Your task to perform on an android device: Clear the cart on amazon.com. Add bose soundsport free to the cart on amazon.com Image 0: 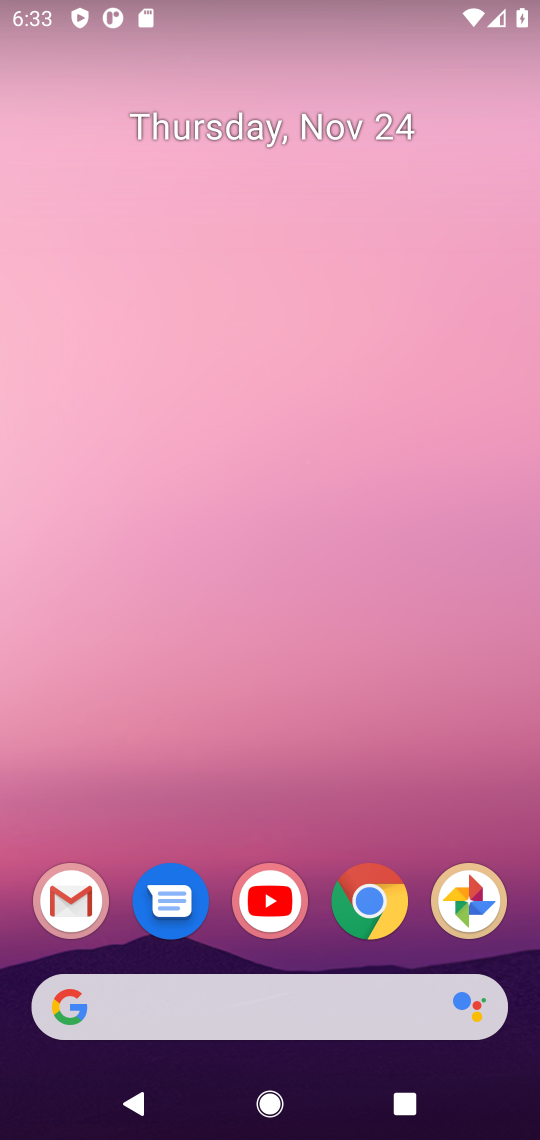
Step 0: click (400, 908)
Your task to perform on an android device: Clear the cart on amazon.com. Add bose soundsport free to the cart on amazon.com Image 1: 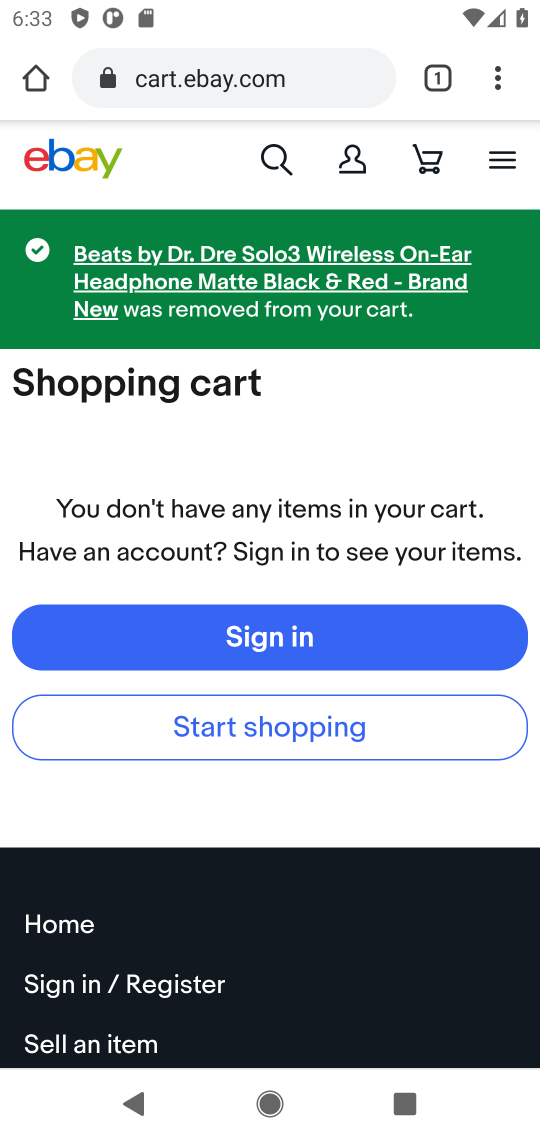
Step 1: click (267, 82)
Your task to perform on an android device: Clear the cart on amazon.com. Add bose soundsport free to the cart on amazon.com Image 2: 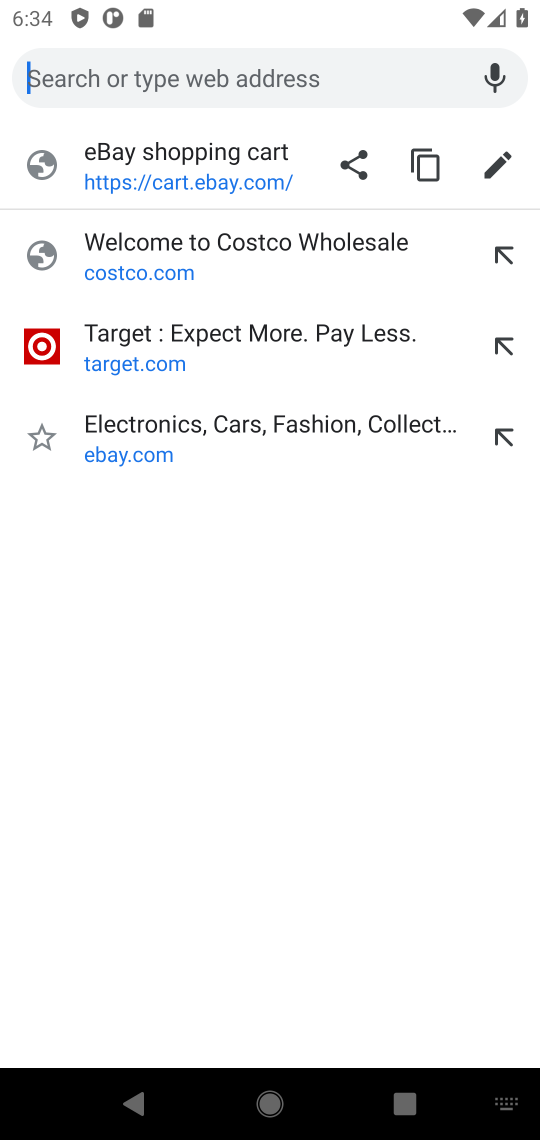
Step 2: type "amazon.com"
Your task to perform on an android device: Clear the cart on amazon.com. Add bose soundsport free to the cart on amazon.com Image 3: 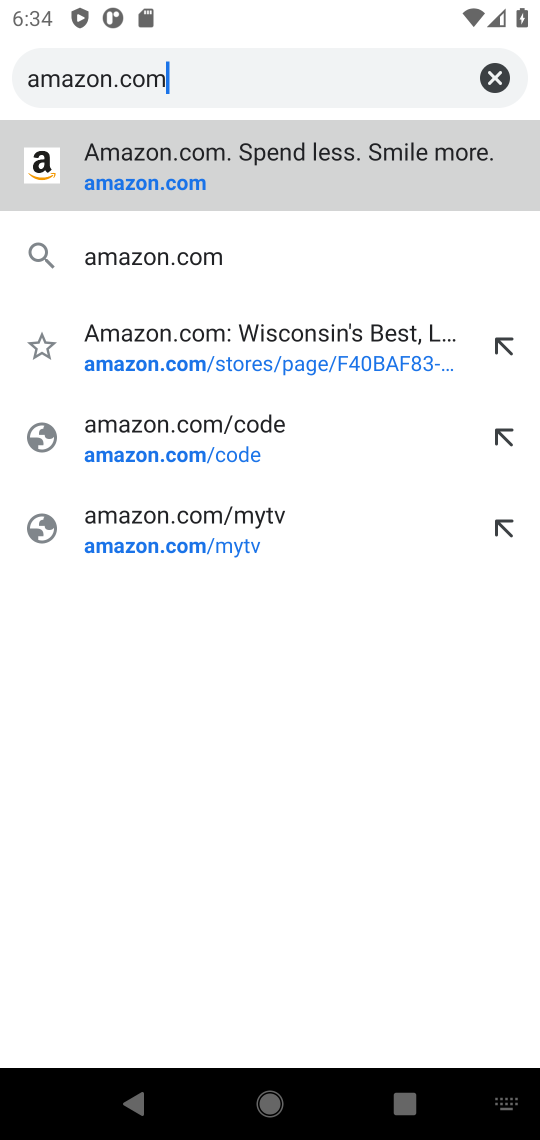
Step 3: click (301, 204)
Your task to perform on an android device: Clear the cart on amazon.com. Add bose soundsport free to the cart on amazon.com Image 4: 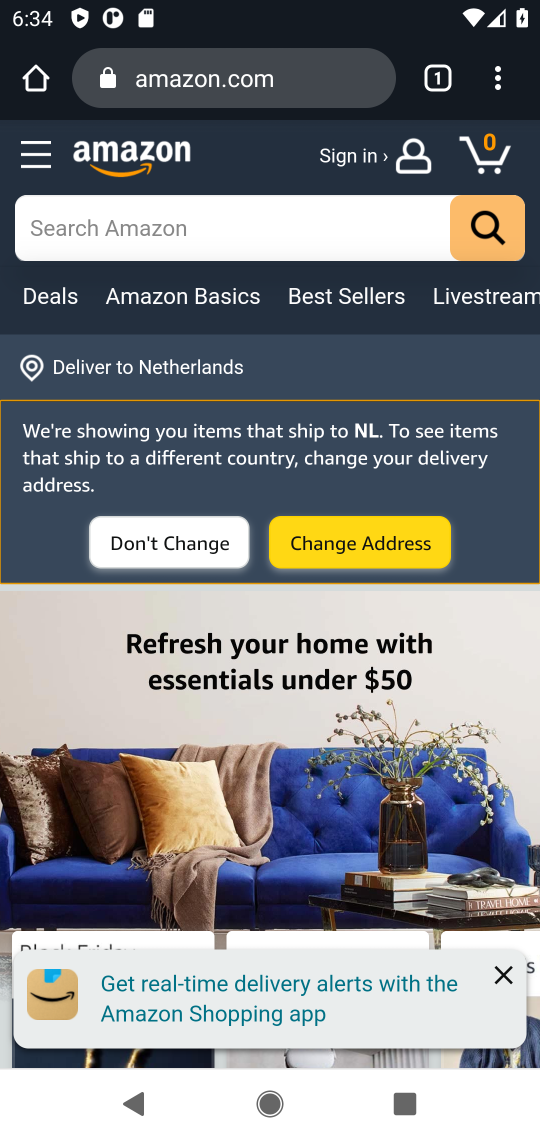
Step 4: click (305, 220)
Your task to perform on an android device: Clear the cart on amazon.com. Add bose soundsport free to the cart on amazon.com Image 5: 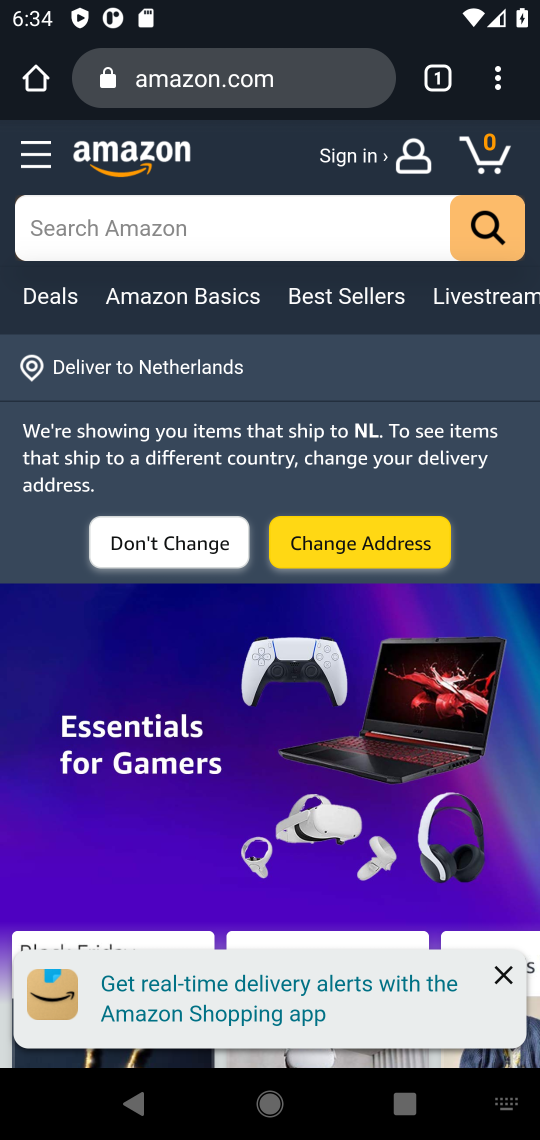
Step 5: type "bose soundsport free"
Your task to perform on an android device: Clear the cart on amazon.com. Add bose soundsport free to the cart on amazon.com Image 6: 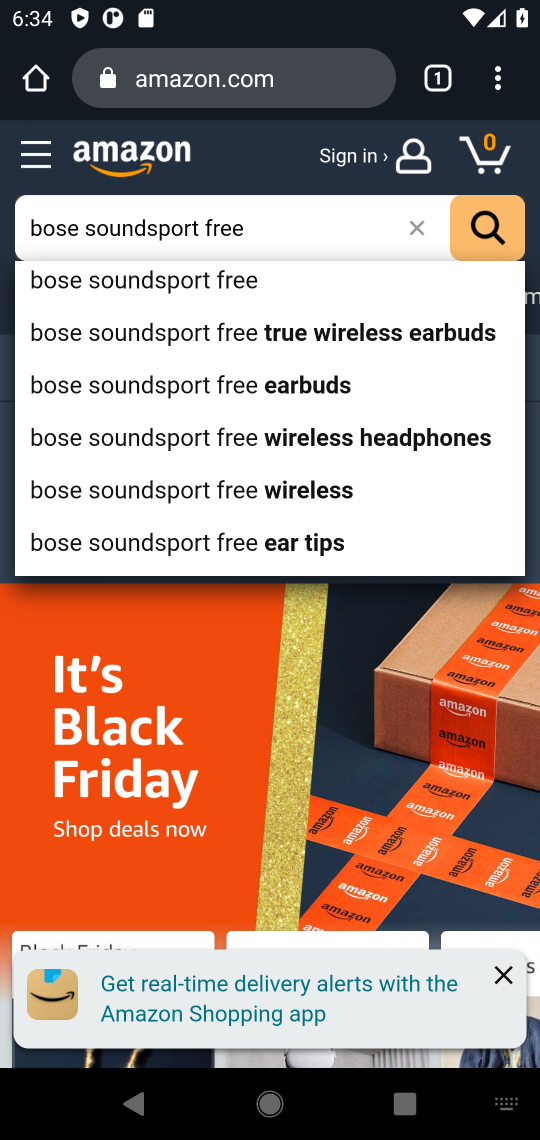
Step 6: click (151, 290)
Your task to perform on an android device: Clear the cart on amazon.com. Add bose soundsport free to the cart on amazon.com Image 7: 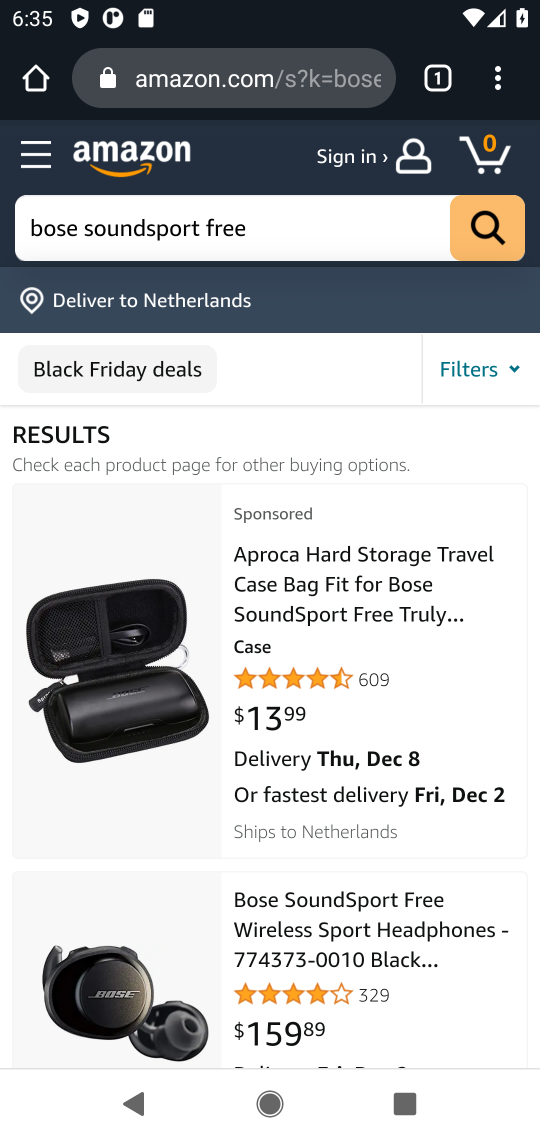
Step 7: click (149, 955)
Your task to perform on an android device: Clear the cart on amazon.com. Add bose soundsport free to the cart on amazon.com Image 8: 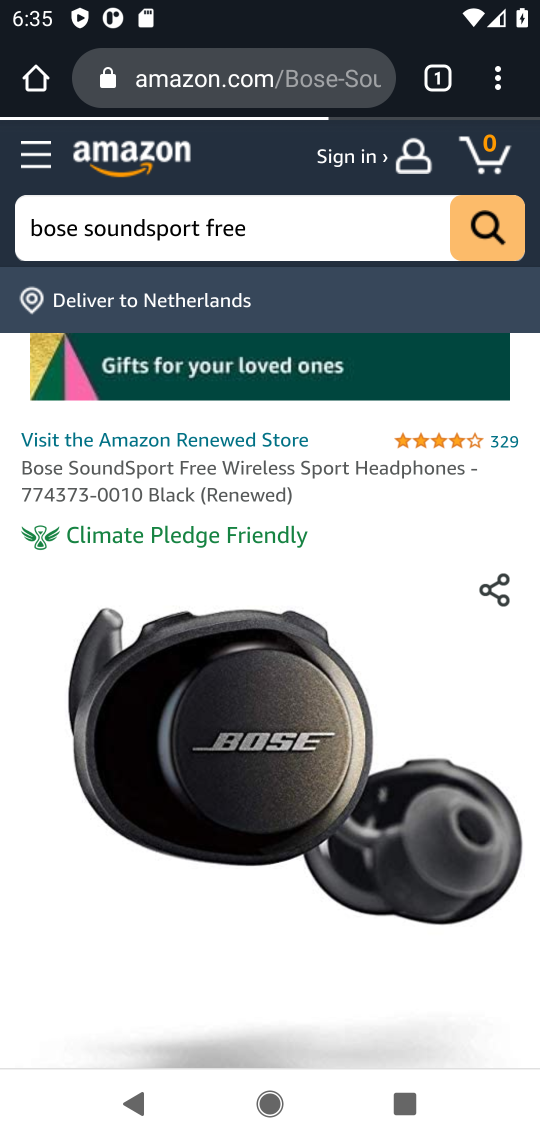
Step 8: drag from (290, 915) to (281, 466)
Your task to perform on an android device: Clear the cart on amazon.com. Add bose soundsport free to the cart on amazon.com Image 9: 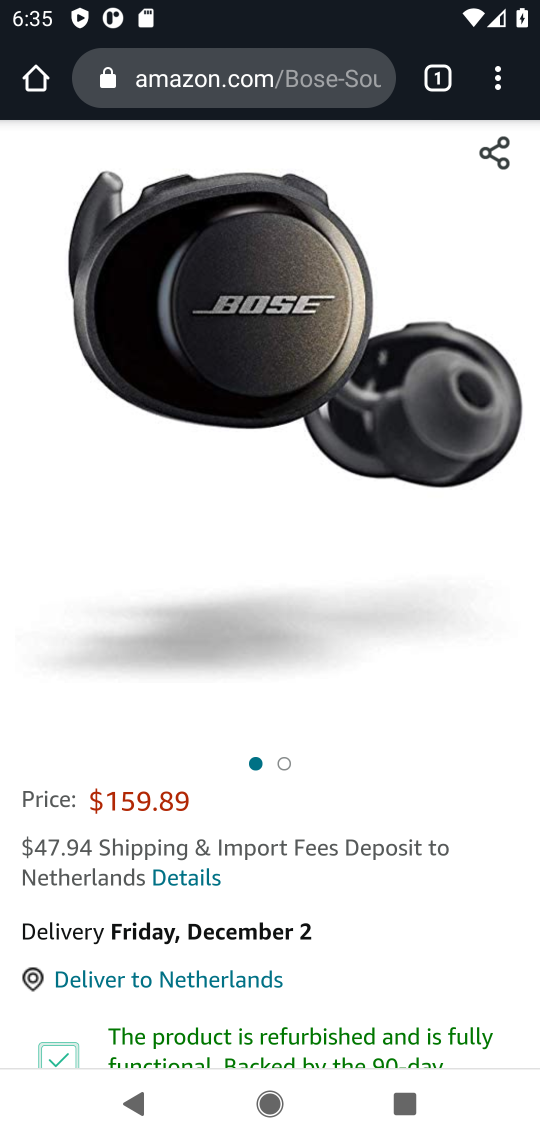
Step 9: drag from (266, 929) to (260, 452)
Your task to perform on an android device: Clear the cart on amazon.com. Add bose soundsport free to the cart on amazon.com Image 10: 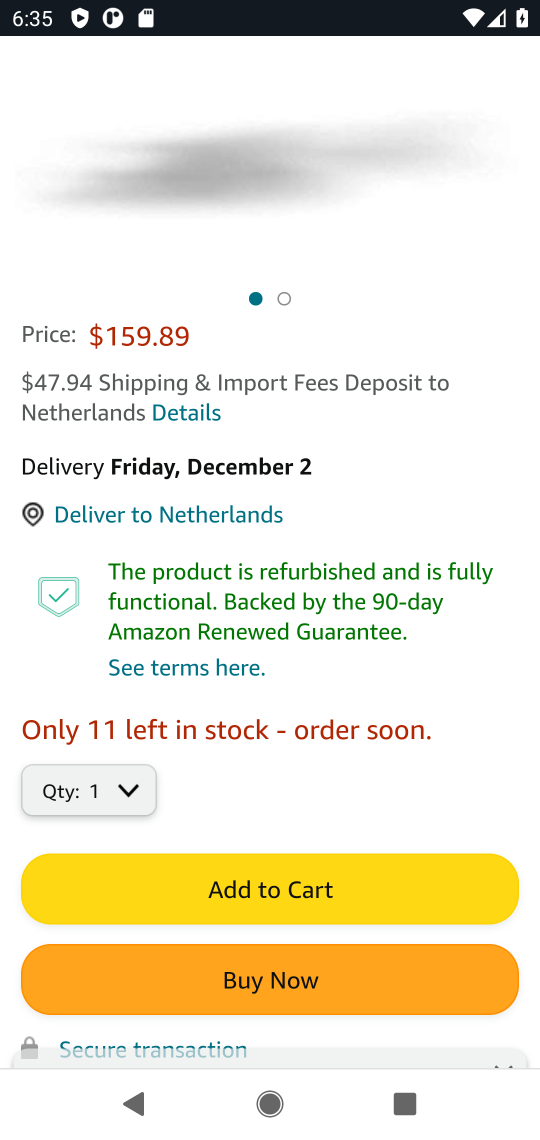
Step 10: click (303, 896)
Your task to perform on an android device: Clear the cart on amazon.com. Add bose soundsport free to the cart on amazon.com Image 11: 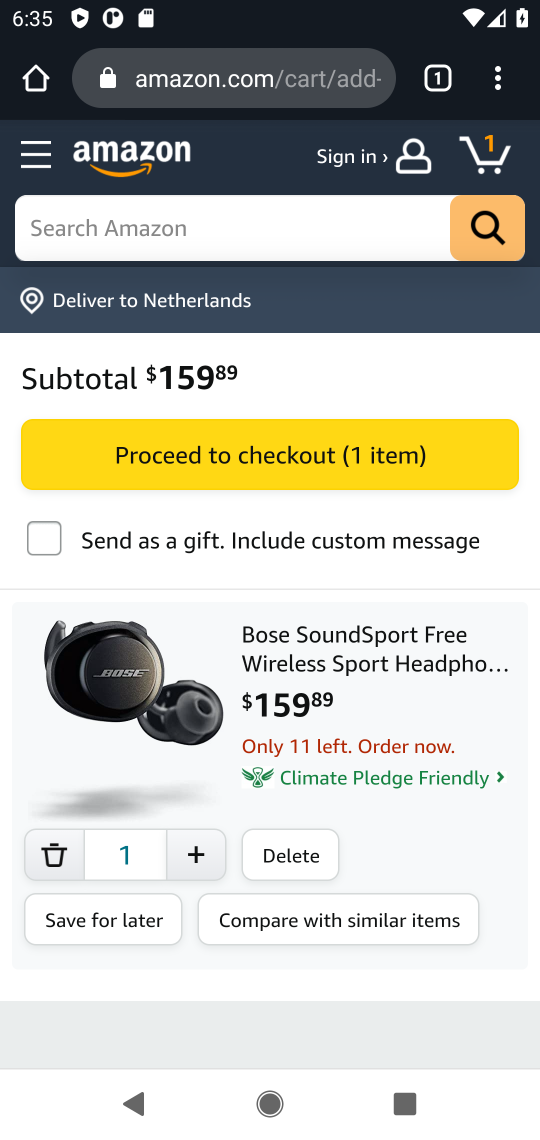
Step 11: task complete